Your task to perform on an android device: Empty the shopping cart on amazon. Add energizer triple a to the cart on amazon, then select checkout. Image 0: 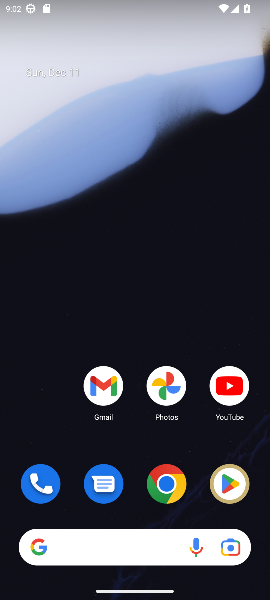
Step 0: click (172, 475)
Your task to perform on an android device: Empty the shopping cart on amazon. Add energizer triple a to the cart on amazon, then select checkout. Image 1: 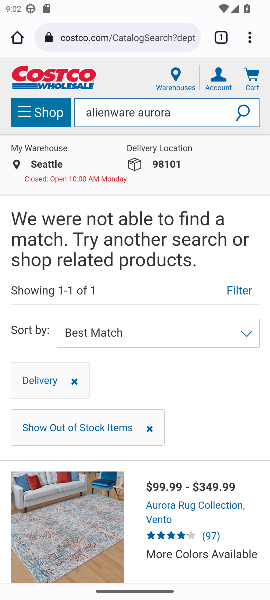
Step 1: click (153, 49)
Your task to perform on an android device: Empty the shopping cart on amazon. Add energizer triple a to the cart on amazon, then select checkout. Image 2: 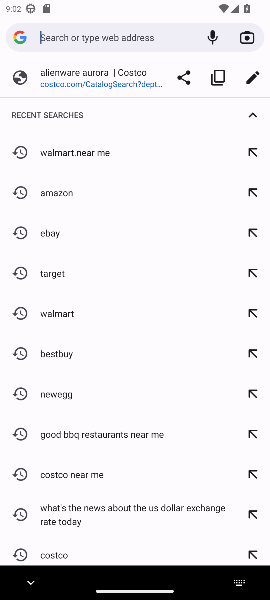
Step 2: click (24, 197)
Your task to perform on an android device: Empty the shopping cart on amazon. Add energizer triple a to the cart on amazon, then select checkout. Image 3: 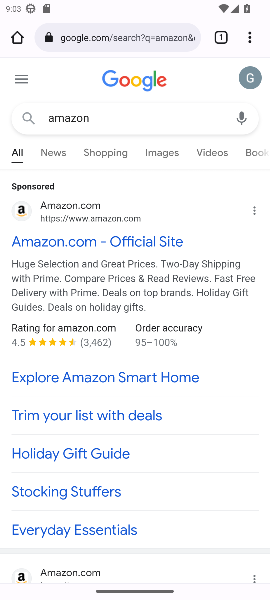
Step 3: click (80, 238)
Your task to perform on an android device: Empty the shopping cart on amazon. Add energizer triple a to the cart on amazon, then select checkout. Image 4: 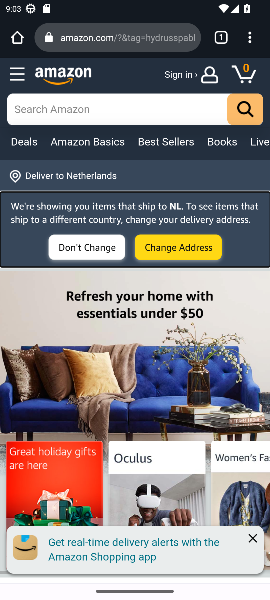
Step 4: click (240, 81)
Your task to perform on an android device: Empty the shopping cart on amazon. Add energizer triple a to the cart on amazon, then select checkout. Image 5: 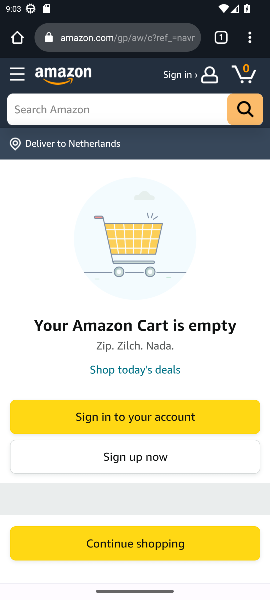
Step 5: click (89, 112)
Your task to perform on an android device: Empty the shopping cart on amazon. Add energizer triple a to the cart on amazon, then select checkout. Image 6: 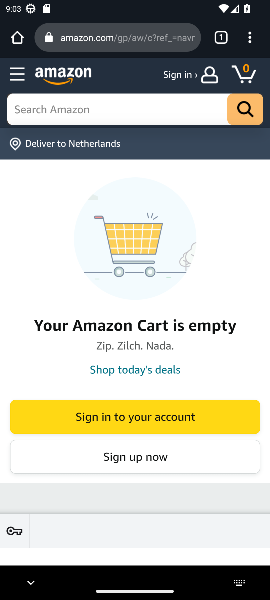
Step 6: type " energizer triple a"
Your task to perform on an android device: Empty the shopping cart on amazon. Add energizer triple a to the cart on amazon, then select checkout. Image 7: 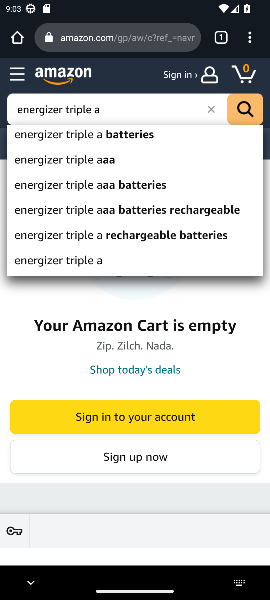
Step 7: click (233, 114)
Your task to perform on an android device: Empty the shopping cart on amazon. Add energizer triple a to the cart on amazon, then select checkout. Image 8: 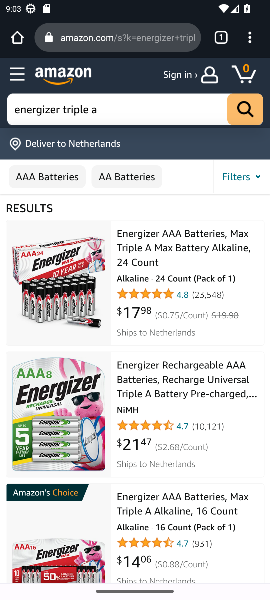
Step 8: click (182, 249)
Your task to perform on an android device: Empty the shopping cart on amazon. Add energizer triple a to the cart on amazon, then select checkout. Image 9: 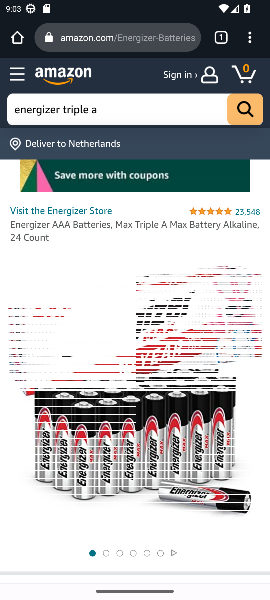
Step 9: drag from (98, 461) to (128, 262)
Your task to perform on an android device: Empty the shopping cart on amazon. Add energizer triple a to the cart on amazon, then select checkout. Image 10: 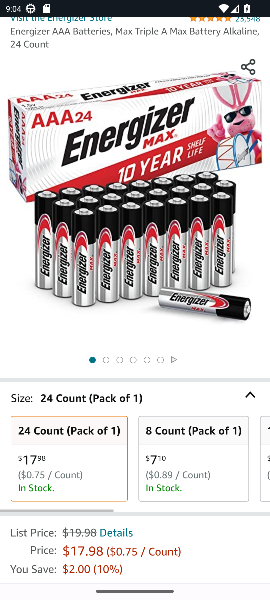
Step 10: drag from (158, 577) to (180, 121)
Your task to perform on an android device: Empty the shopping cart on amazon. Add energizer triple a to the cart on amazon, then select checkout. Image 11: 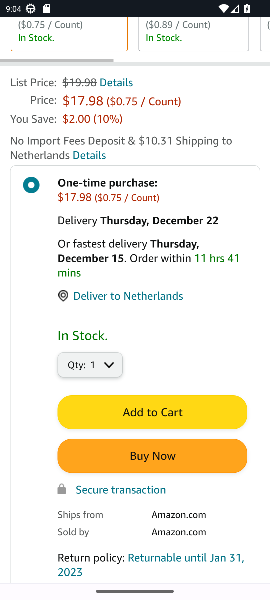
Step 11: click (143, 410)
Your task to perform on an android device: Empty the shopping cart on amazon. Add energizer triple a to the cart on amazon, then select checkout. Image 12: 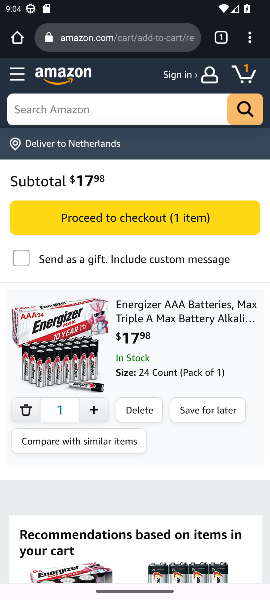
Step 12: click (191, 225)
Your task to perform on an android device: Empty the shopping cart on amazon. Add energizer triple a to the cart on amazon, then select checkout. Image 13: 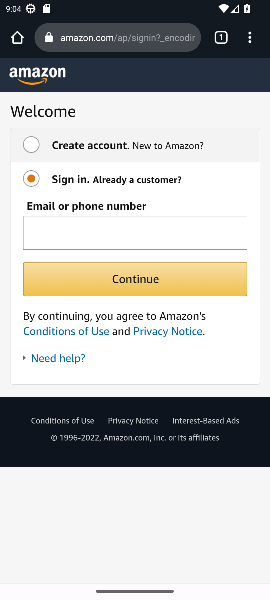
Step 13: task complete